Your task to perform on an android device: find snoozed emails in the gmail app Image 0: 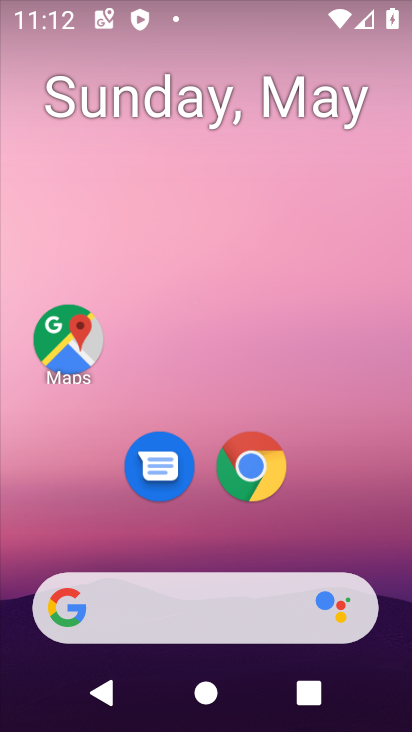
Step 0: drag from (406, 625) to (317, 55)
Your task to perform on an android device: find snoozed emails in the gmail app Image 1: 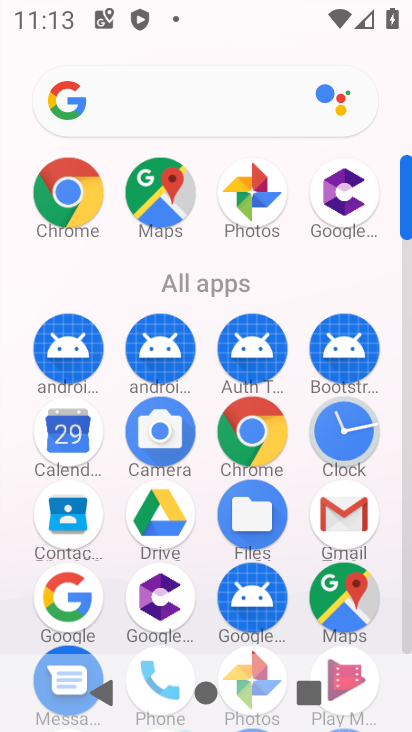
Step 1: click (344, 536)
Your task to perform on an android device: find snoozed emails in the gmail app Image 2: 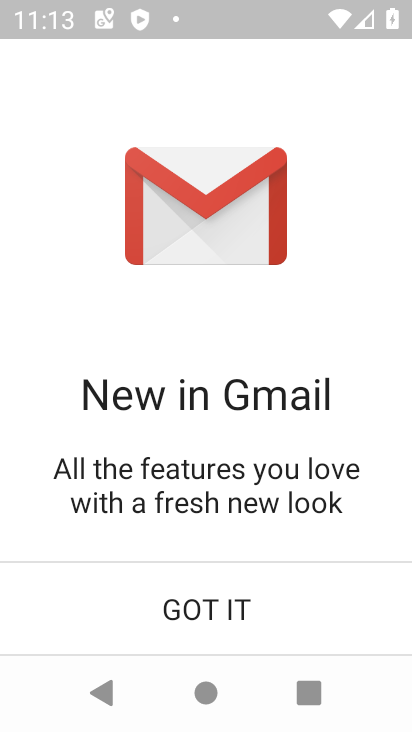
Step 2: click (228, 602)
Your task to perform on an android device: find snoozed emails in the gmail app Image 3: 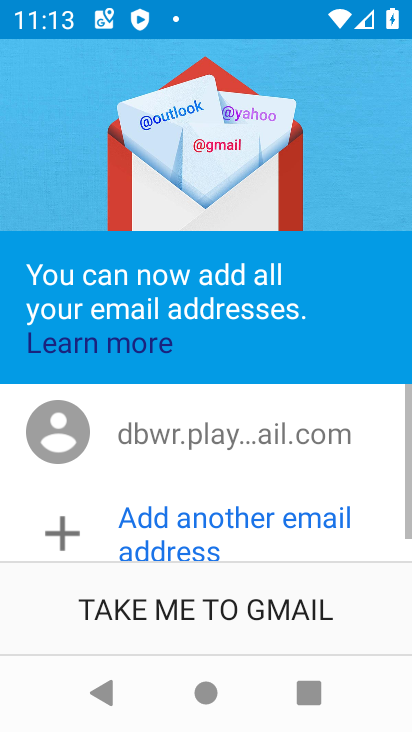
Step 3: click (204, 621)
Your task to perform on an android device: find snoozed emails in the gmail app Image 4: 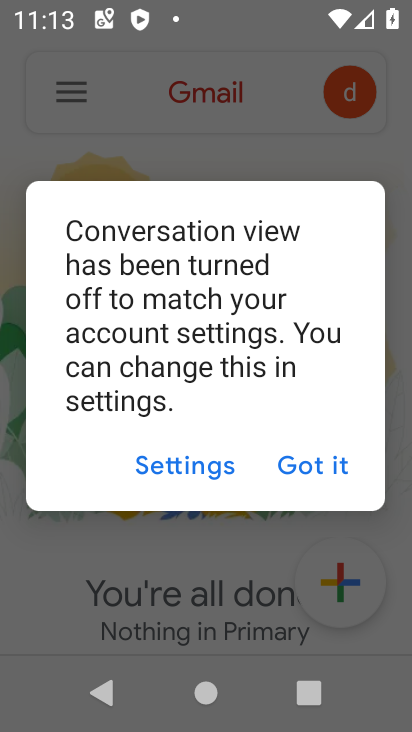
Step 4: click (348, 463)
Your task to perform on an android device: find snoozed emails in the gmail app Image 5: 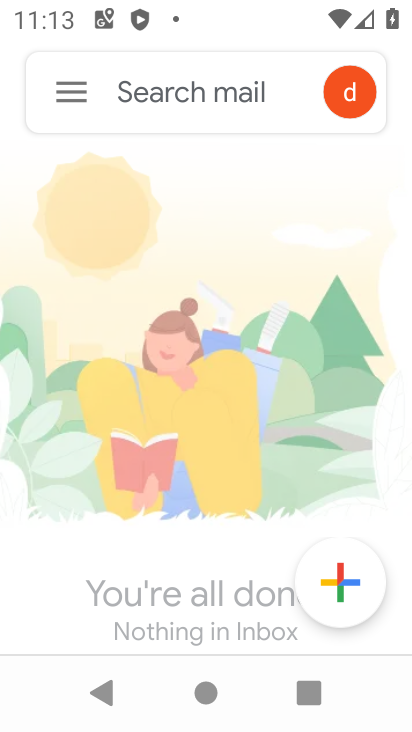
Step 5: click (66, 87)
Your task to perform on an android device: find snoozed emails in the gmail app Image 6: 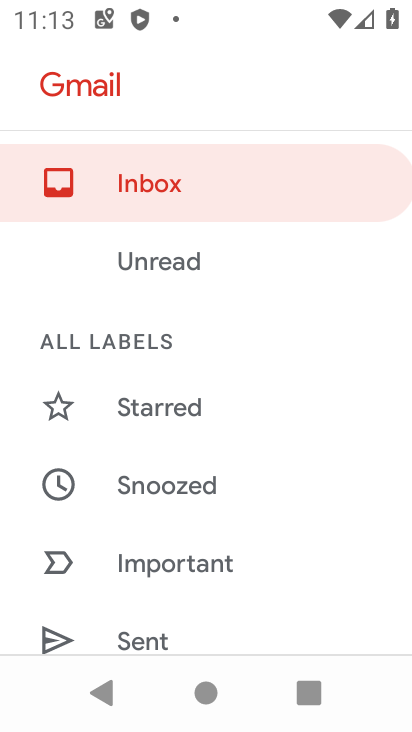
Step 6: click (228, 483)
Your task to perform on an android device: find snoozed emails in the gmail app Image 7: 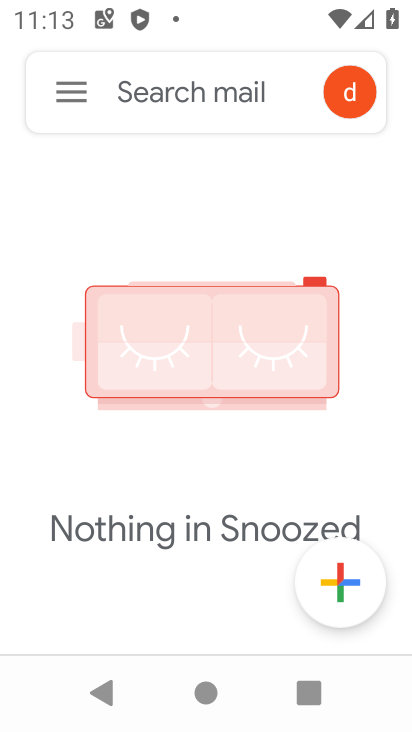
Step 7: task complete